Your task to perform on an android device: What is the recent news? Image 0: 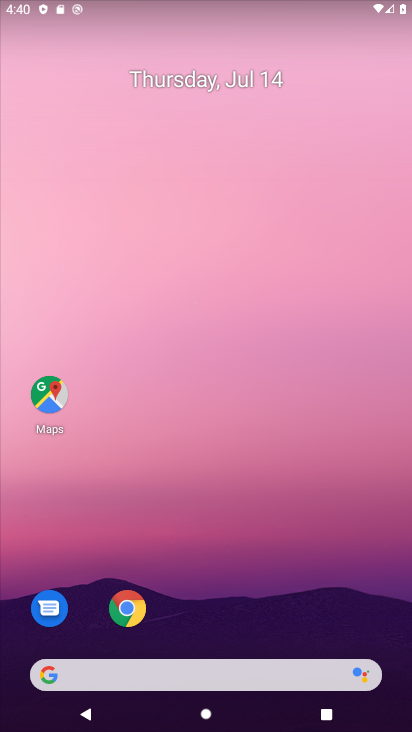
Step 0: drag from (290, 617) to (283, 134)
Your task to perform on an android device: What is the recent news? Image 1: 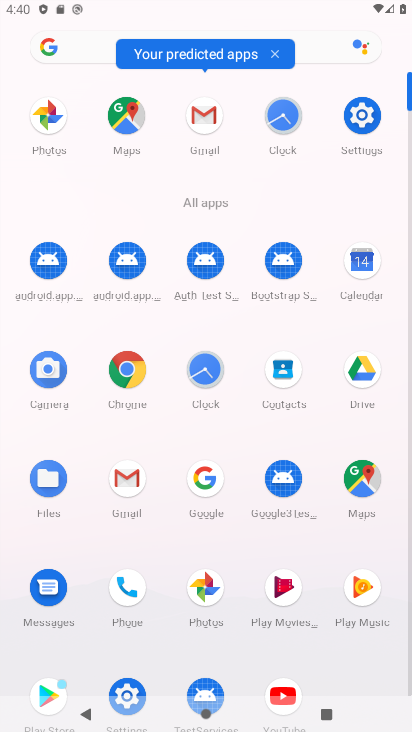
Step 1: click (125, 365)
Your task to perform on an android device: What is the recent news? Image 2: 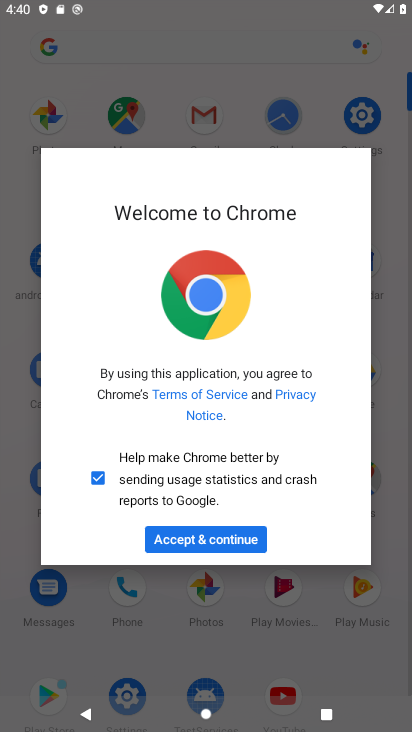
Step 2: click (228, 545)
Your task to perform on an android device: What is the recent news? Image 3: 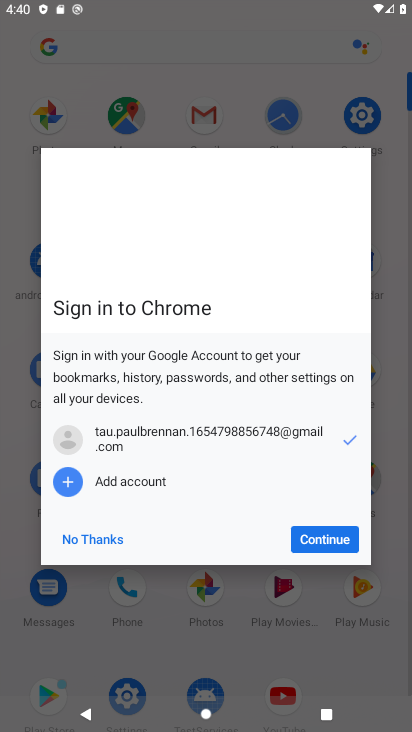
Step 3: click (313, 542)
Your task to perform on an android device: What is the recent news? Image 4: 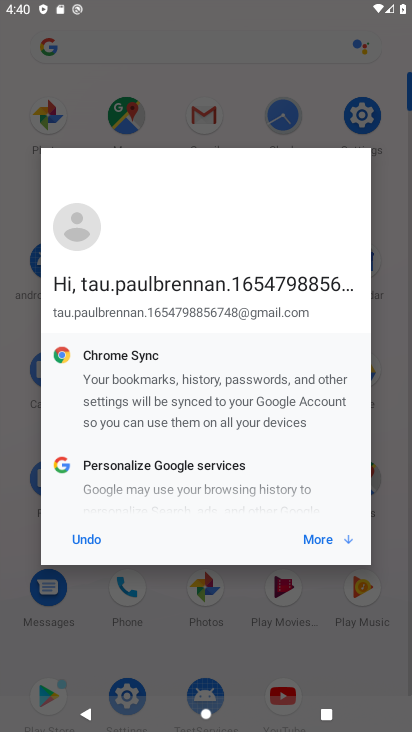
Step 4: click (313, 542)
Your task to perform on an android device: What is the recent news? Image 5: 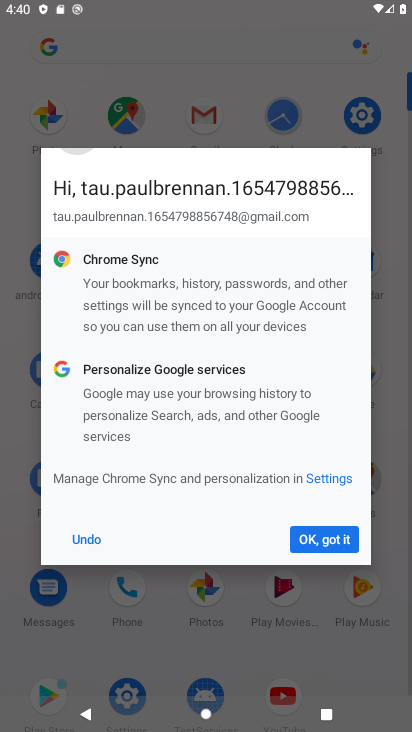
Step 5: click (313, 542)
Your task to perform on an android device: What is the recent news? Image 6: 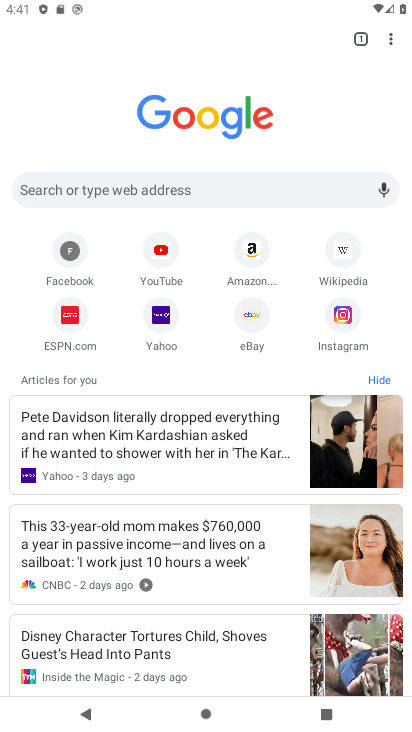
Step 6: click (210, 180)
Your task to perform on an android device: What is the recent news? Image 7: 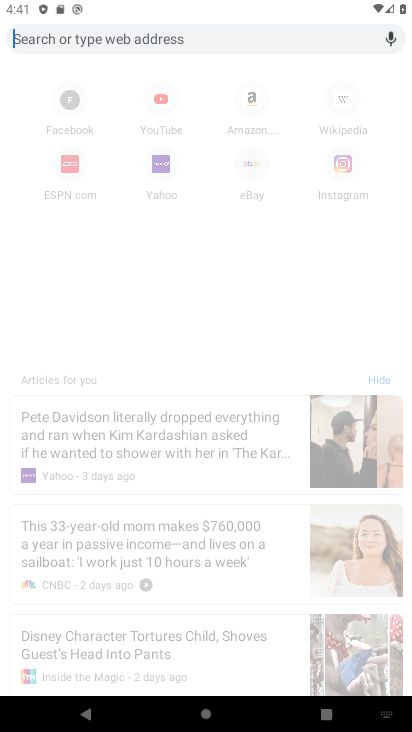
Step 7: type "news"
Your task to perform on an android device: What is the recent news? Image 8: 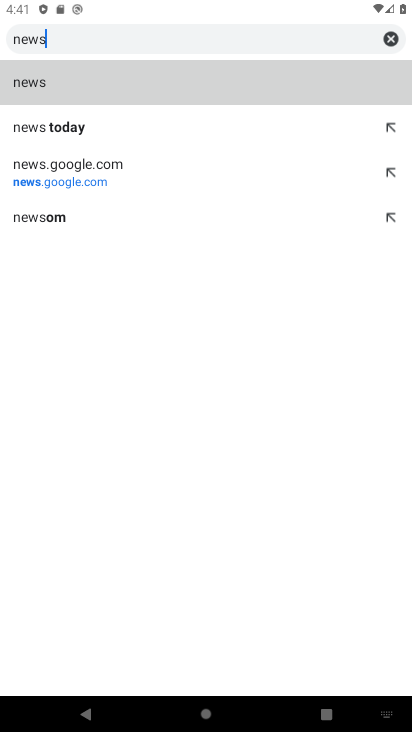
Step 8: click (44, 184)
Your task to perform on an android device: What is the recent news? Image 9: 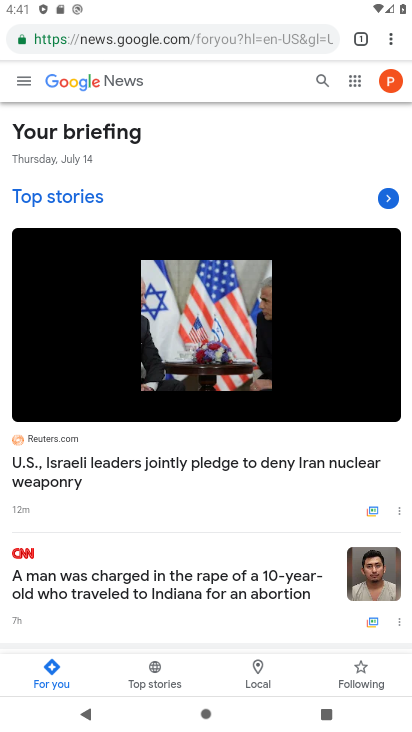
Step 9: task complete